Your task to perform on an android device: create a new album in the google photos Image 0: 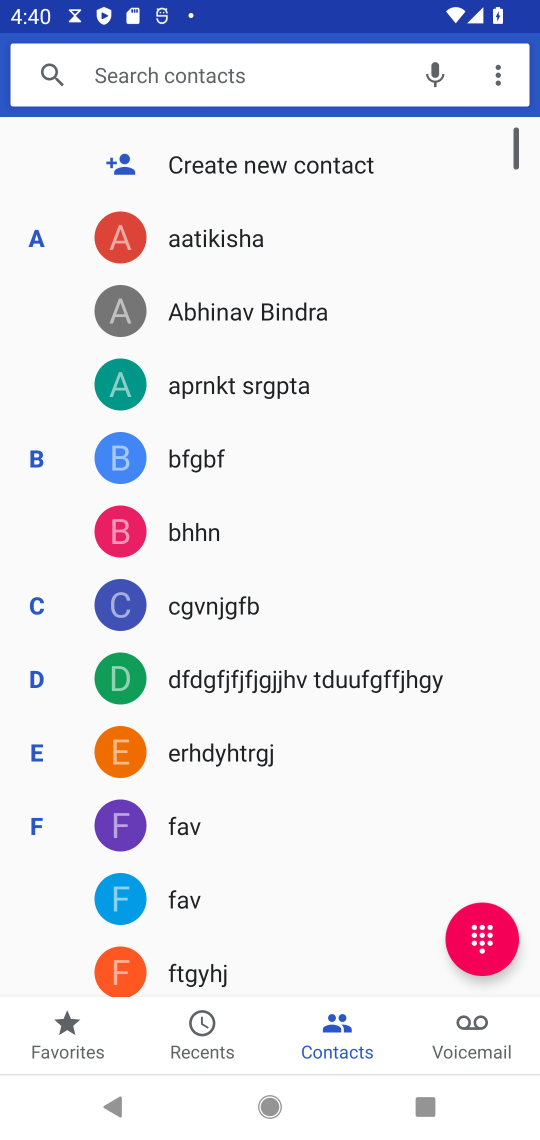
Step 0: press home button
Your task to perform on an android device: create a new album in the google photos Image 1: 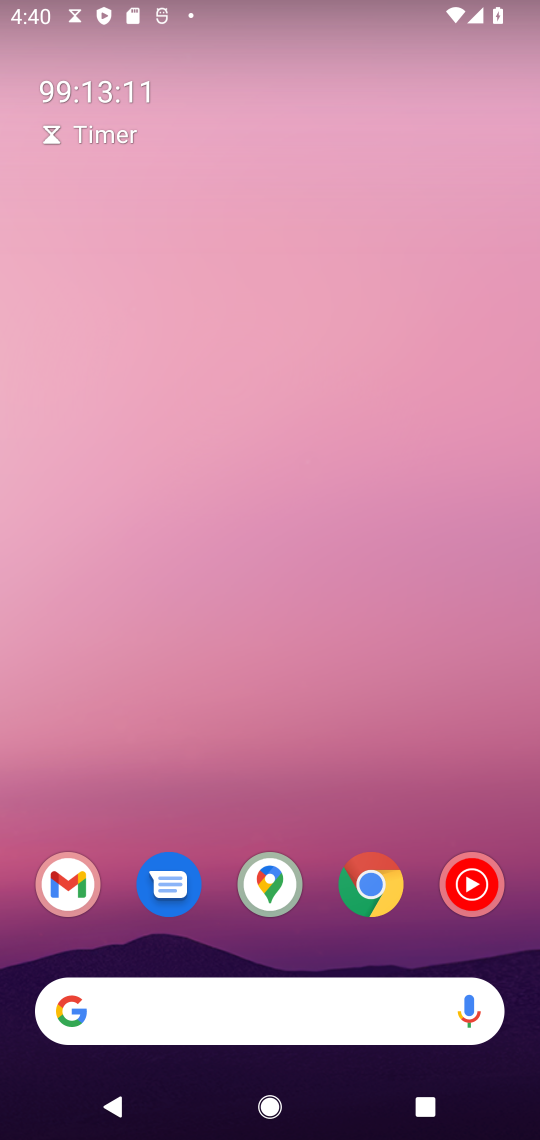
Step 1: drag from (211, 940) to (228, 180)
Your task to perform on an android device: create a new album in the google photos Image 2: 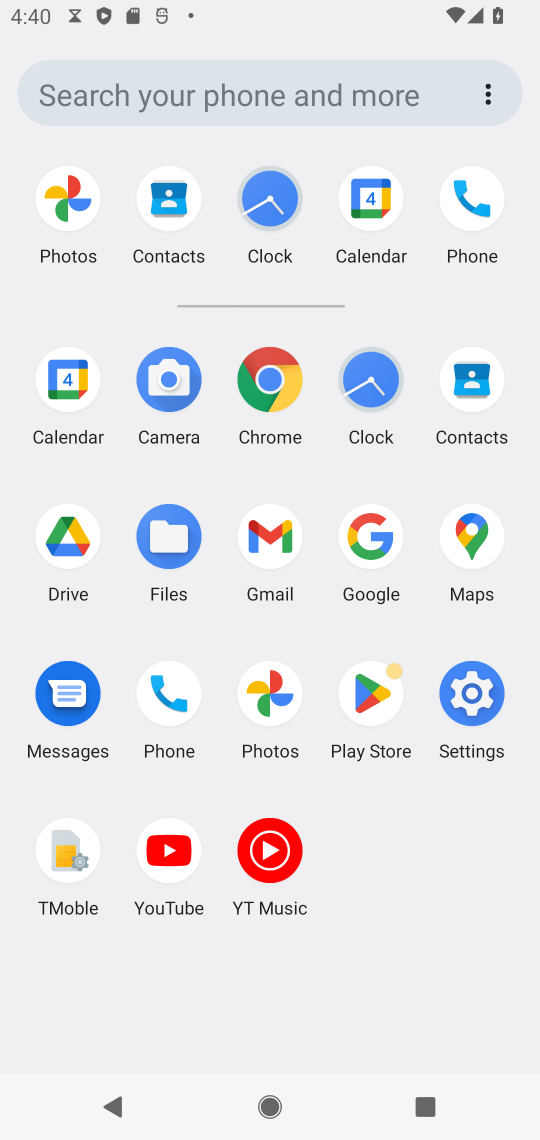
Step 2: click (266, 679)
Your task to perform on an android device: create a new album in the google photos Image 3: 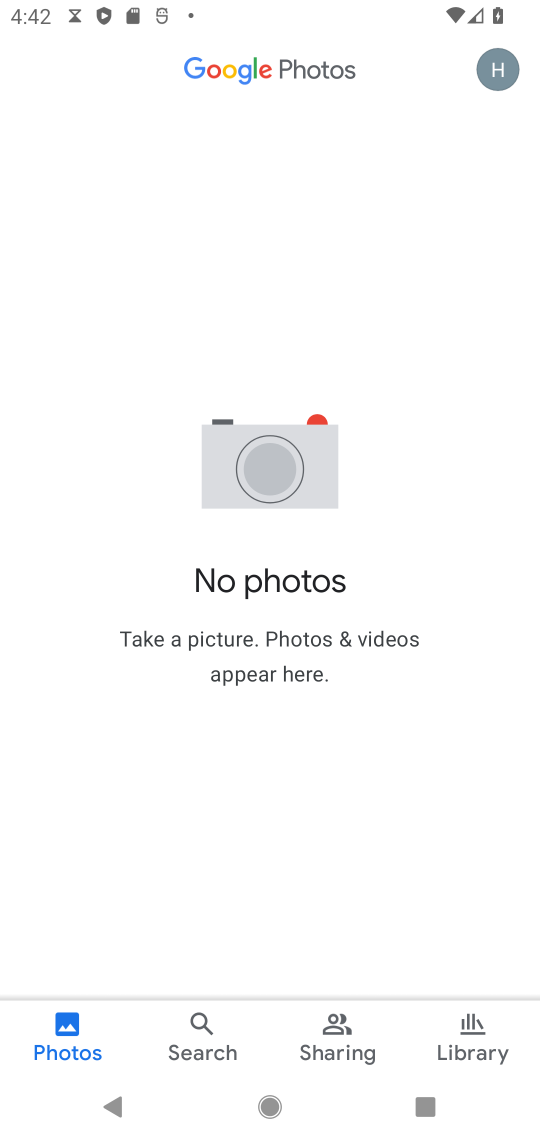
Step 3: task complete